Your task to perform on an android device: Search for Mexican restaurants on Maps Image 0: 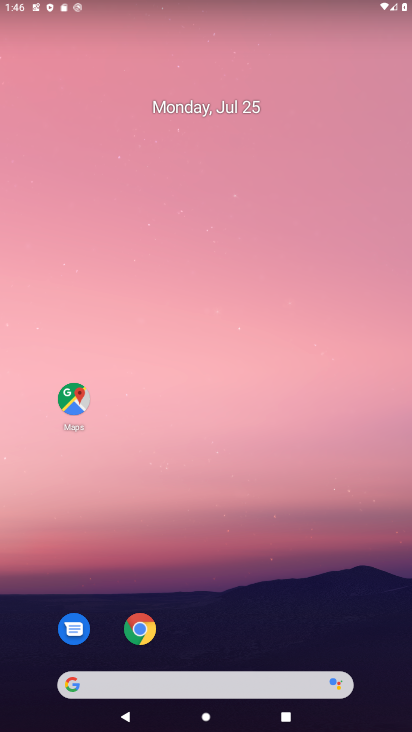
Step 0: drag from (181, 631) to (246, 156)
Your task to perform on an android device: Search for Mexican restaurants on Maps Image 1: 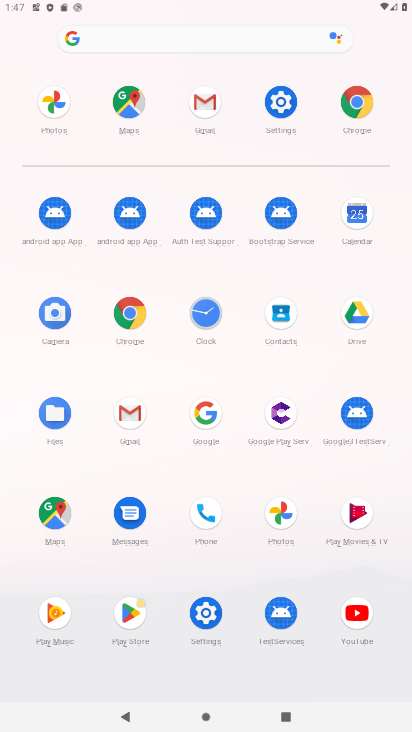
Step 1: drag from (229, 566) to (256, 336)
Your task to perform on an android device: Search for Mexican restaurants on Maps Image 2: 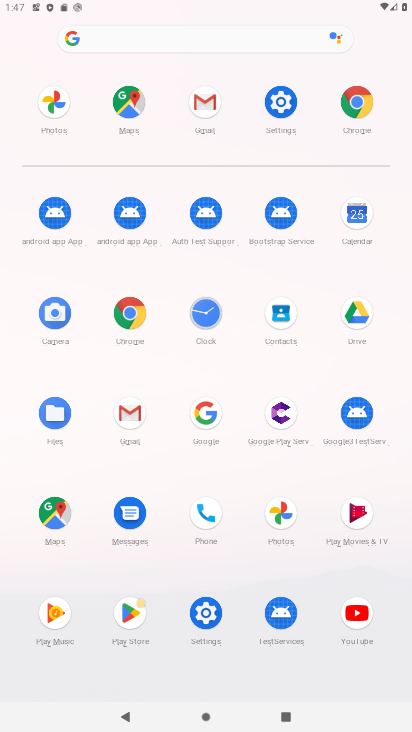
Step 2: drag from (239, 623) to (264, 268)
Your task to perform on an android device: Search for Mexican restaurants on Maps Image 3: 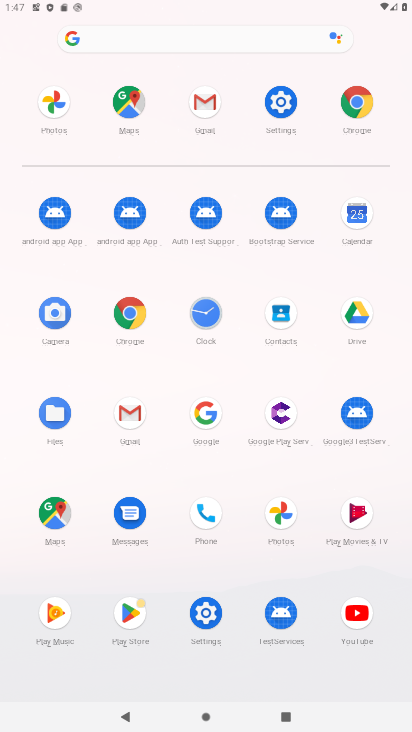
Step 3: click (50, 506)
Your task to perform on an android device: Search for Mexican restaurants on Maps Image 4: 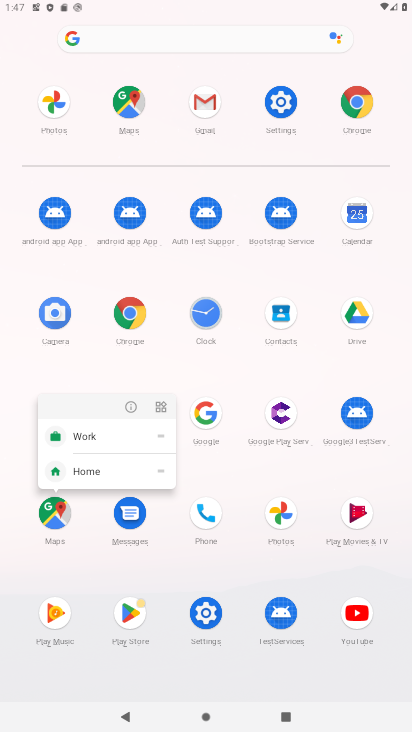
Step 4: click (127, 403)
Your task to perform on an android device: Search for Mexican restaurants on Maps Image 5: 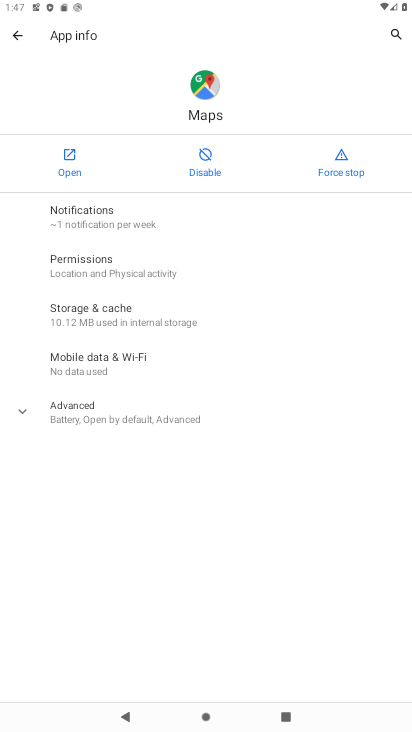
Step 5: click (71, 147)
Your task to perform on an android device: Search for Mexican restaurants on Maps Image 6: 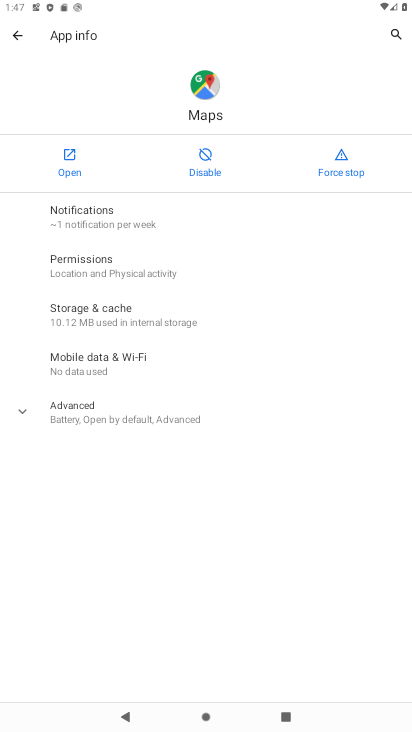
Step 6: click (71, 147)
Your task to perform on an android device: Search for Mexican restaurants on Maps Image 7: 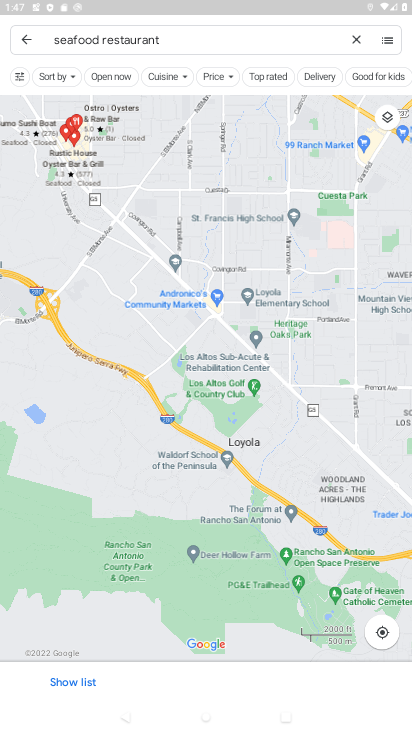
Step 7: click (359, 35)
Your task to perform on an android device: Search for Mexican restaurants on Maps Image 8: 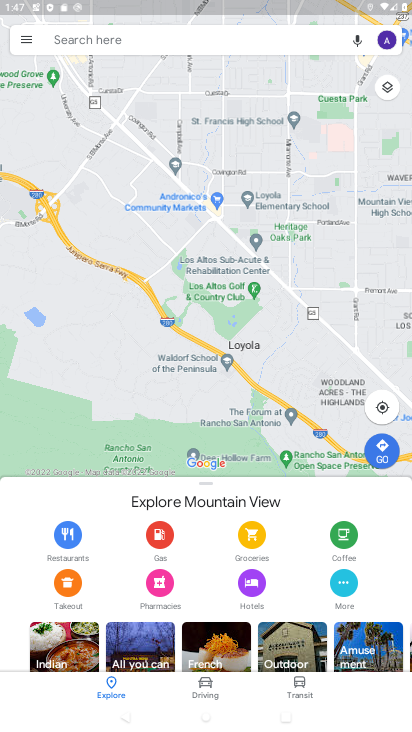
Step 8: click (91, 35)
Your task to perform on an android device: Search for Mexican restaurants on Maps Image 9: 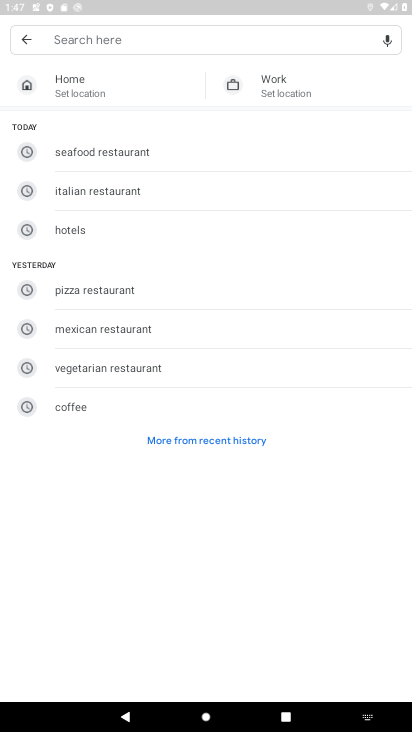
Step 9: click (76, 319)
Your task to perform on an android device: Search for Mexican restaurants on Maps Image 10: 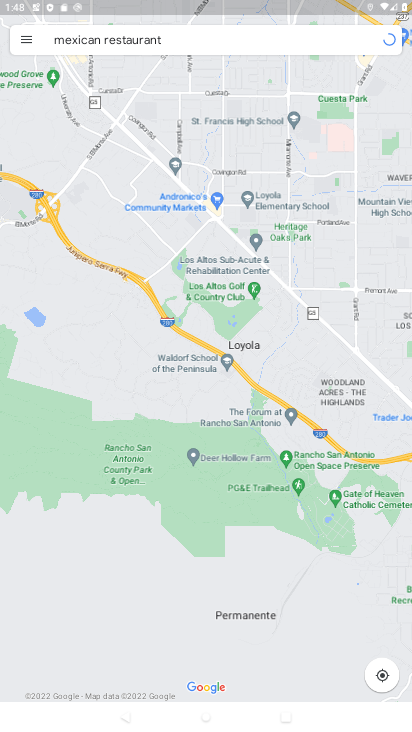
Step 10: drag from (146, 536) to (186, 244)
Your task to perform on an android device: Search for Mexican restaurants on Maps Image 11: 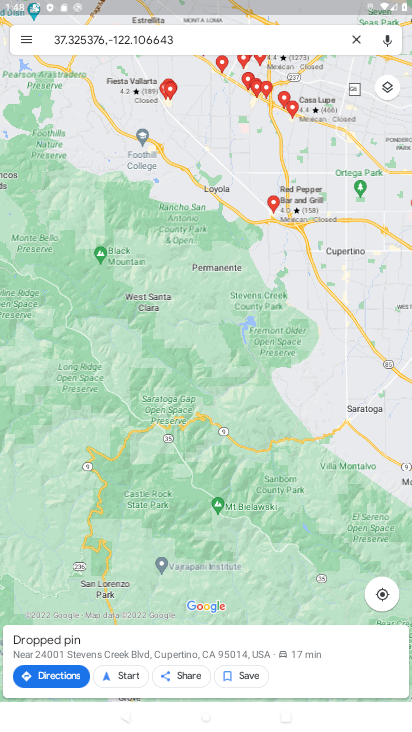
Step 11: click (203, 226)
Your task to perform on an android device: Search for Mexican restaurants on Maps Image 12: 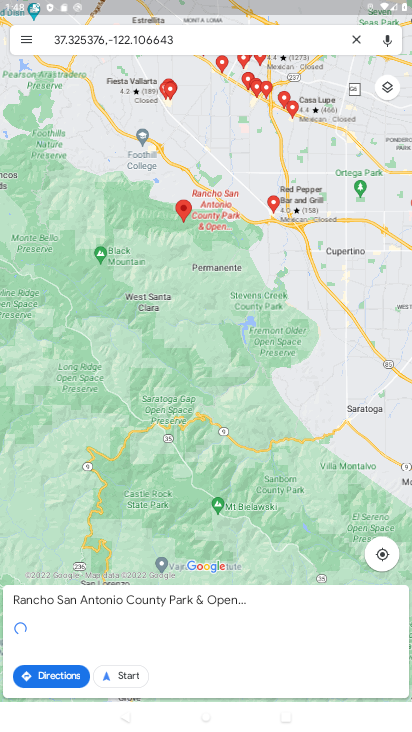
Step 12: drag from (193, 637) to (194, 400)
Your task to perform on an android device: Search for Mexican restaurants on Maps Image 13: 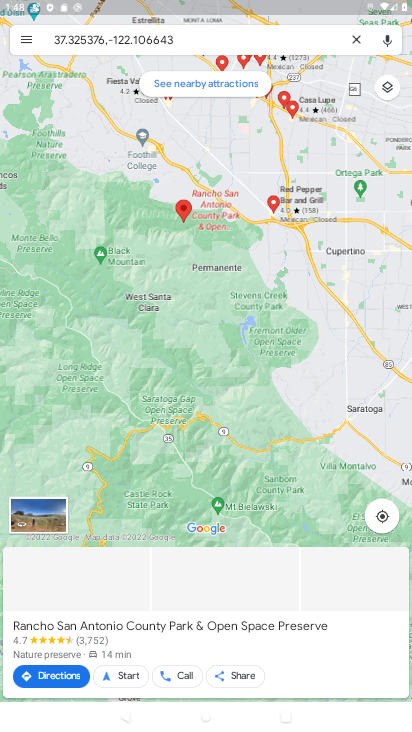
Step 13: click (356, 30)
Your task to perform on an android device: Search for Mexican restaurants on Maps Image 14: 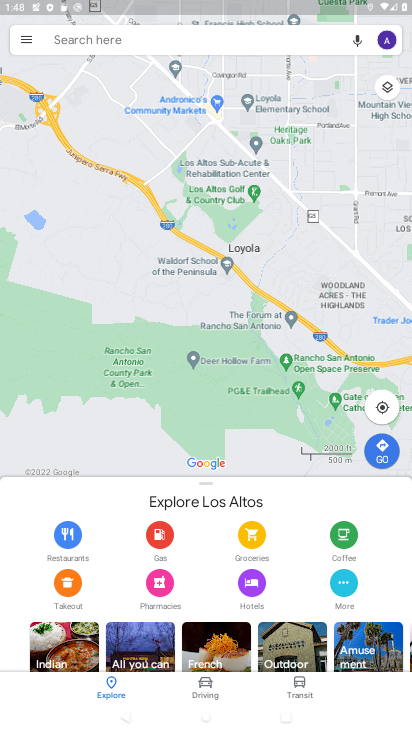
Step 14: click (101, 44)
Your task to perform on an android device: Search for Mexican restaurants on Maps Image 15: 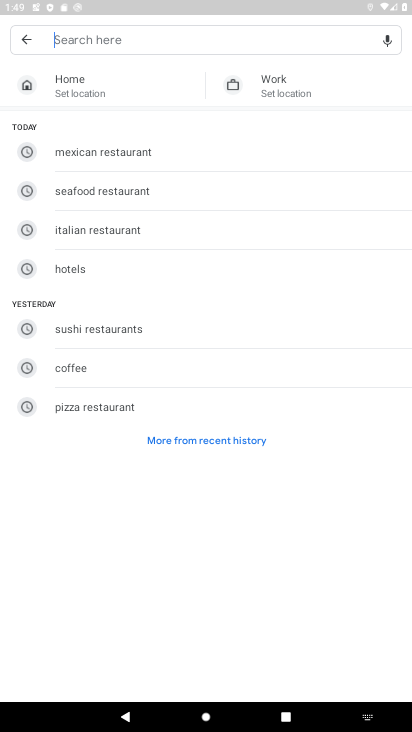
Step 15: click (88, 159)
Your task to perform on an android device: Search for Mexican restaurants on Maps Image 16: 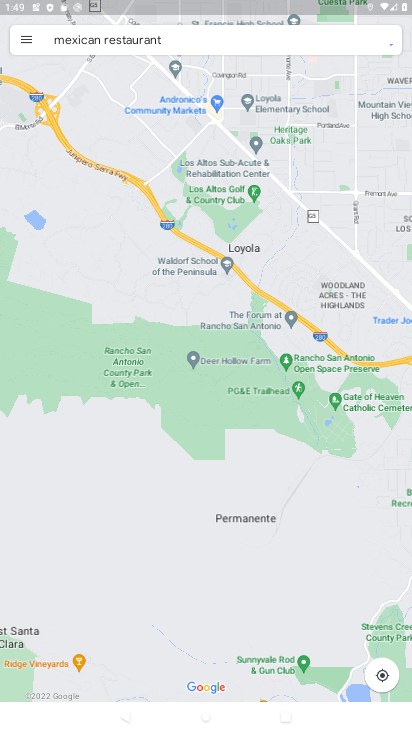
Step 16: task complete